Your task to perform on an android device: Open Yahoo.com Image 0: 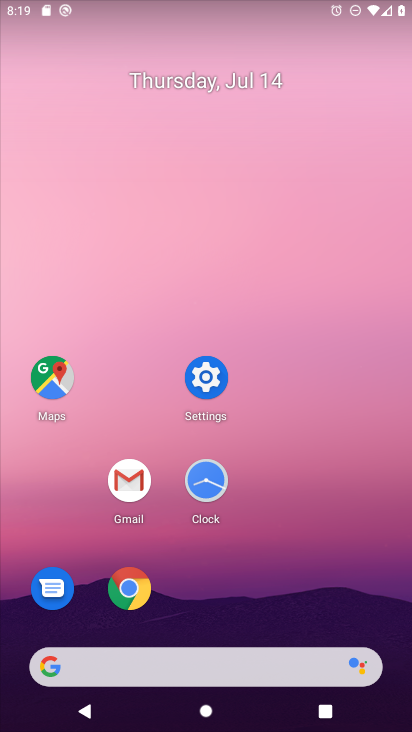
Step 0: click (127, 589)
Your task to perform on an android device: Open Yahoo.com Image 1: 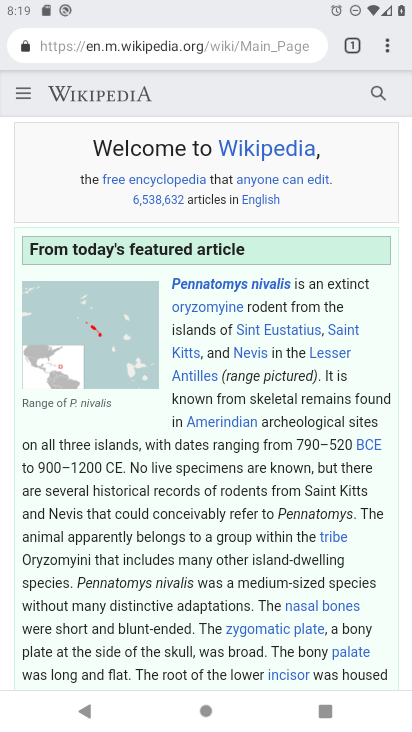
Step 1: click (293, 42)
Your task to perform on an android device: Open Yahoo.com Image 2: 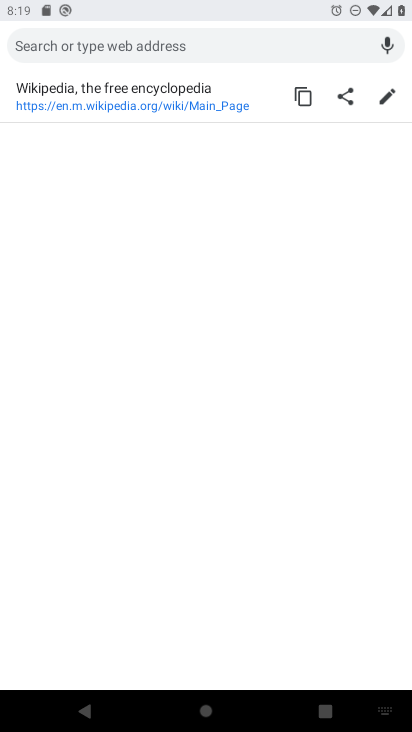
Step 2: type "Yahoo.com"
Your task to perform on an android device: Open Yahoo.com Image 3: 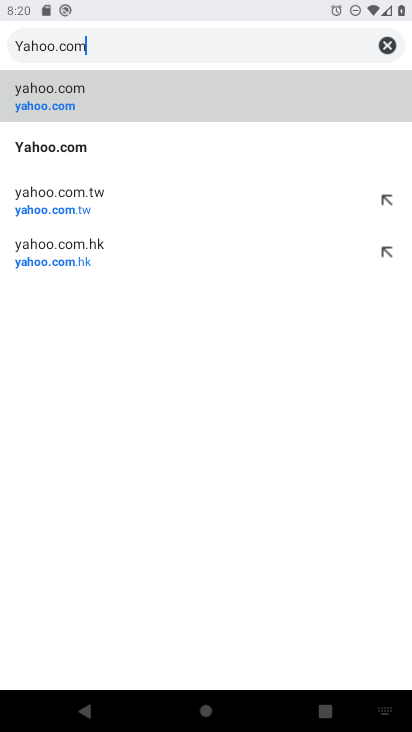
Step 3: click (73, 147)
Your task to perform on an android device: Open Yahoo.com Image 4: 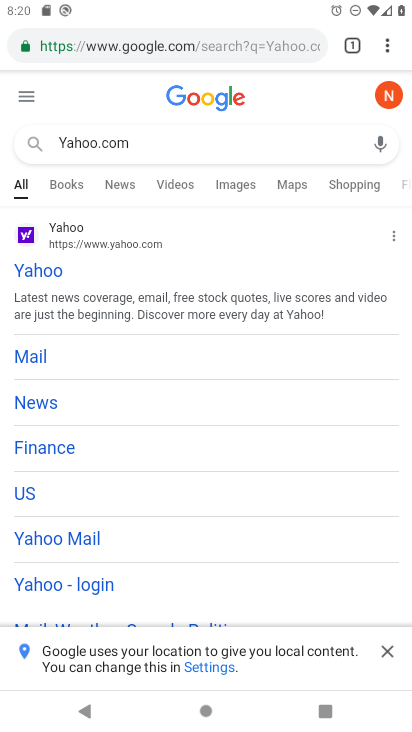
Step 4: task complete